Your task to perform on an android device: Open my contact list Image 0: 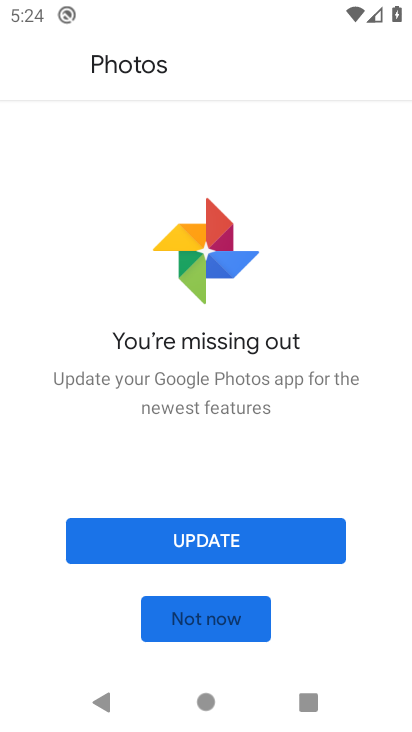
Step 0: press home button
Your task to perform on an android device: Open my contact list Image 1: 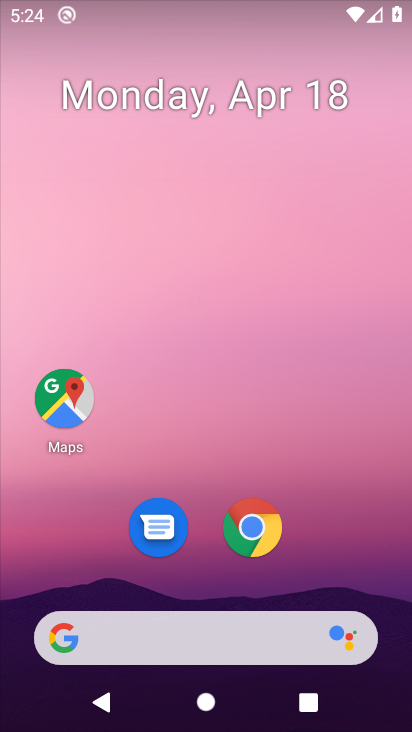
Step 1: drag from (202, 397) to (232, 215)
Your task to perform on an android device: Open my contact list Image 2: 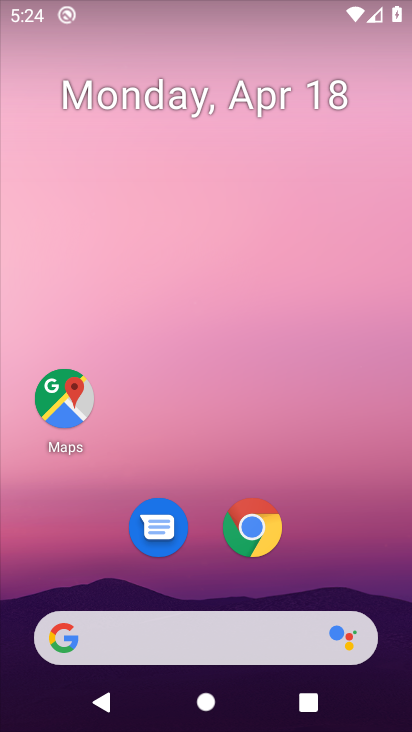
Step 2: drag from (184, 606) to (213, 58)
Your task to perform on an android device: Open my contact list Image 3: 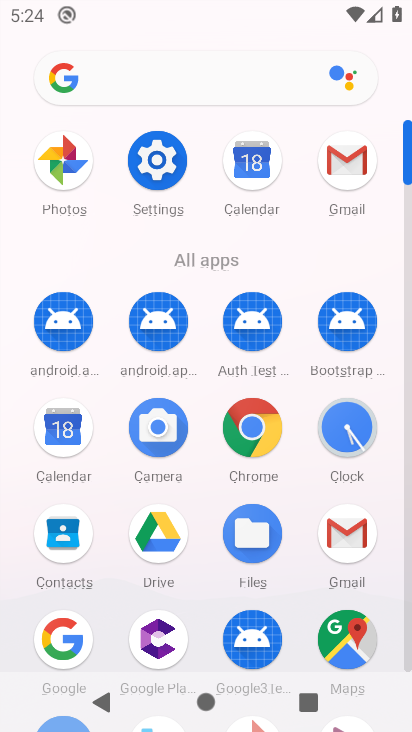
Step 3: click (56, 534)
Your task to perform on an android device: Open my contact list Image 4: 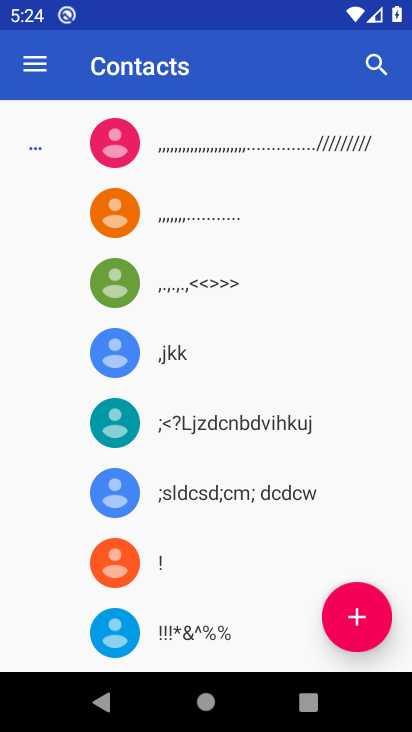
Step 4: task complete